Your task to perform on an android device: check storage Image 0: 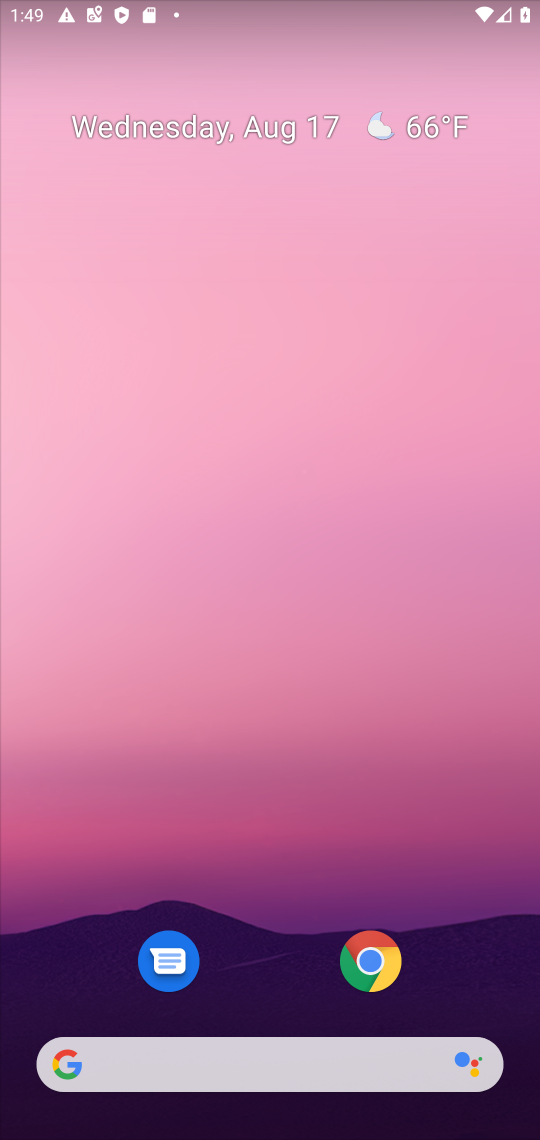
Step 0: drag from (403, 678) to (533, 43)
Your task to perform on an android device: check storage Image 1: 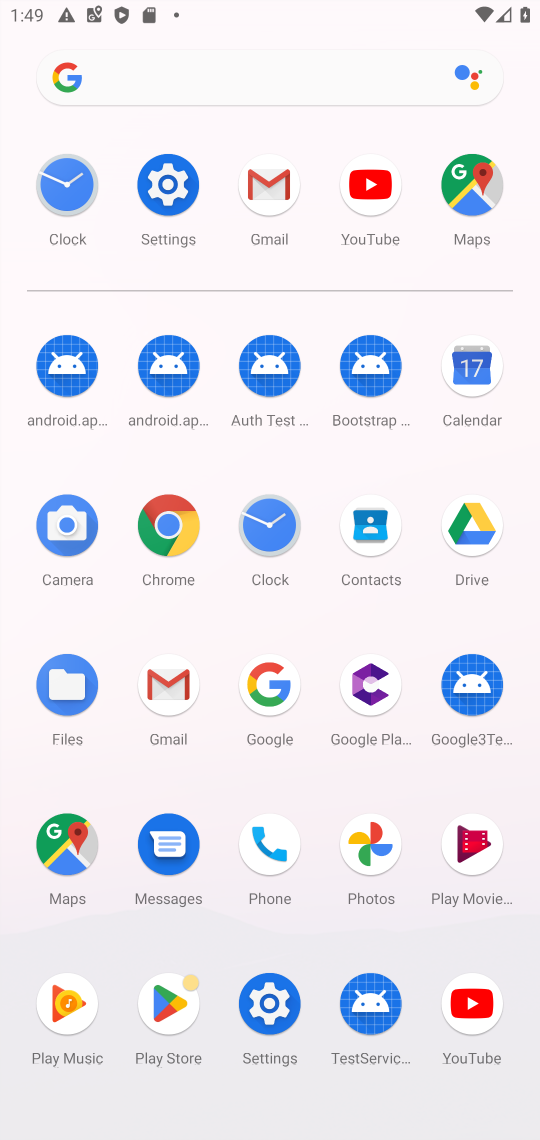
Step 1: click (188, 198)
Your task to perform on an android device: check storage Image 2: 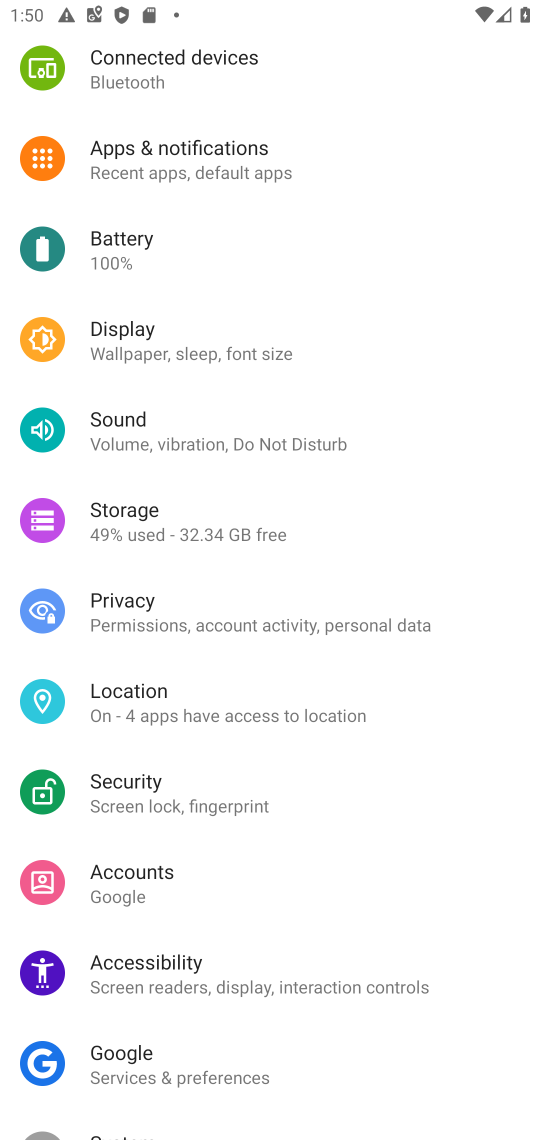
Step 2: click (154, 528)
Your task to perform on an android device: check storage Image 3: 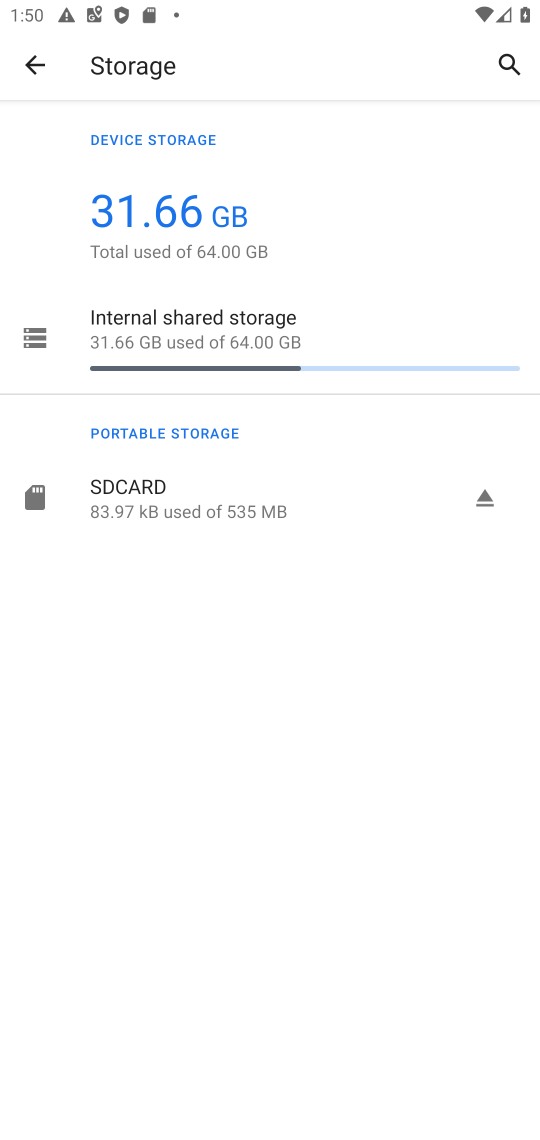
Step 3: click (217, 362)
Your task to perform on an android device: check storage Image 4: 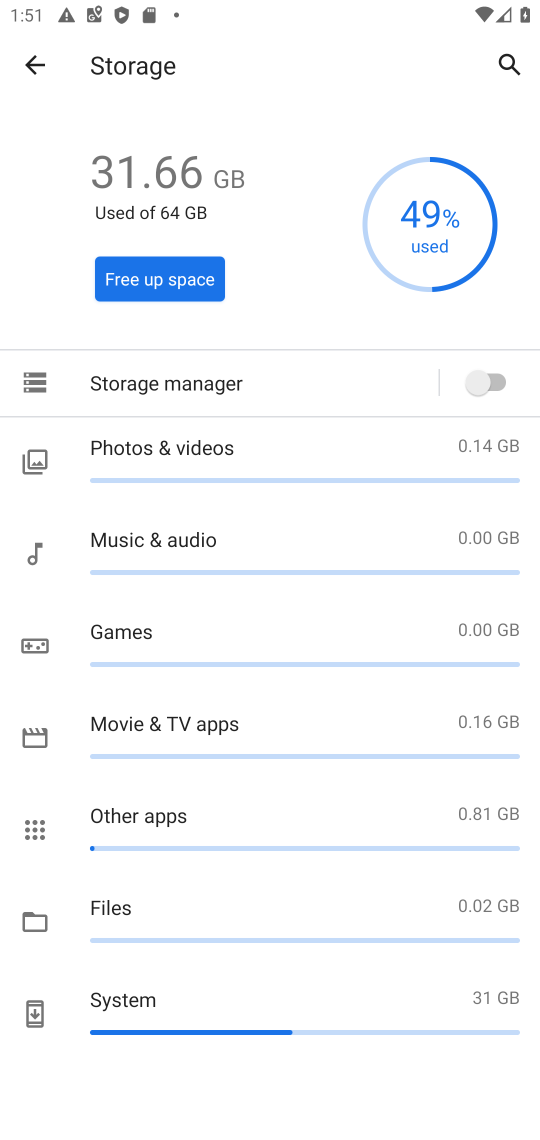
Step 4: task complete